Your task to perform on an android device: Go to notification settings Image 0: 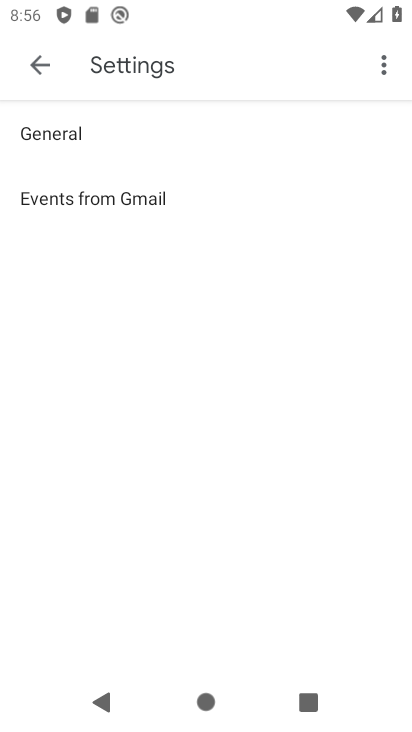
Step 0: press home button
Your task to perform on an android device: Go to notification settings Image 1: 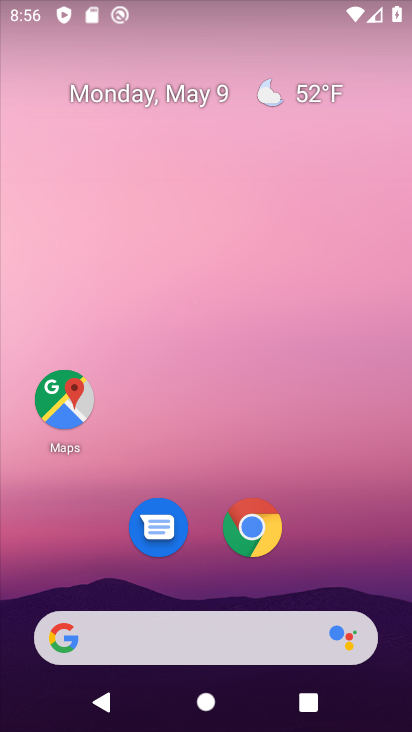
Step 1: drag from (355, 574) to (330, 226)
Your task to perform on an android device: Go to notification settings Image 2: 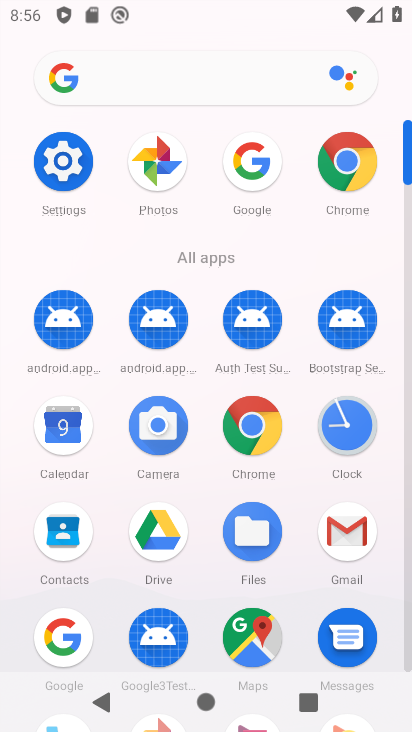
Step 2: click (61, 176)
Your task to perform on an android device: Go to notification settings Image 3: 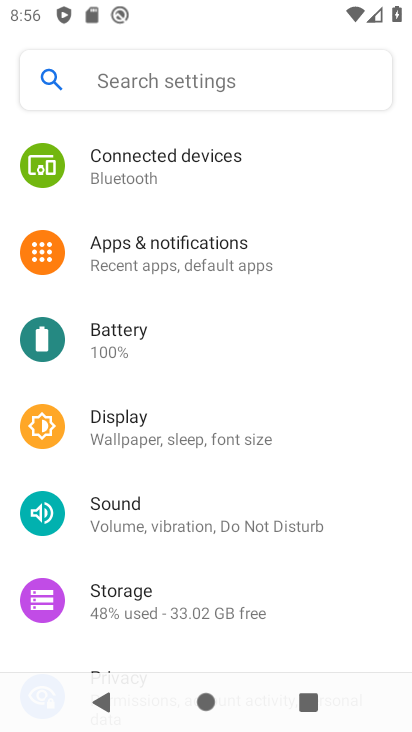
Step 3: click (204, 243)
Your task to perform on an android device: Go to notification settings Image 4: 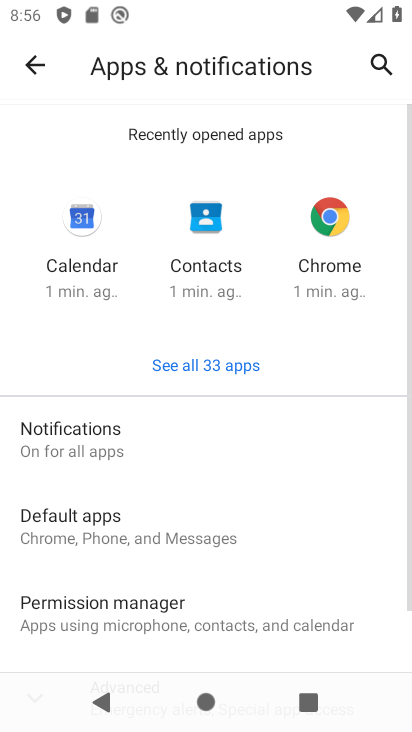
Step 4: click (135, 450)
Your task to perform on an android device: Go to notification settings Image 5: 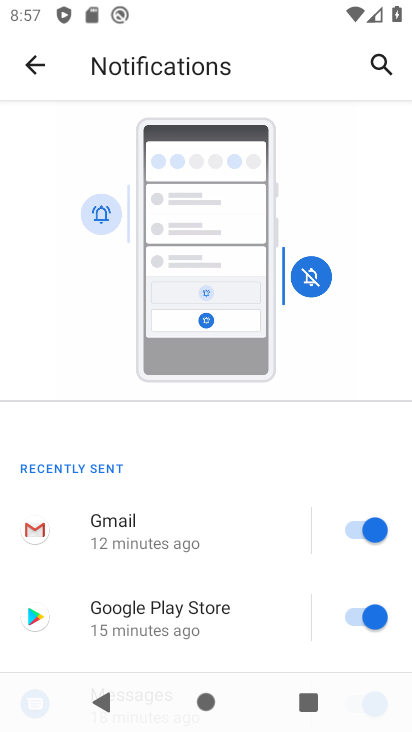
Step 5: task complete